Your task to perform on an android device: toggle priority inbox in the gmail app Image 0: 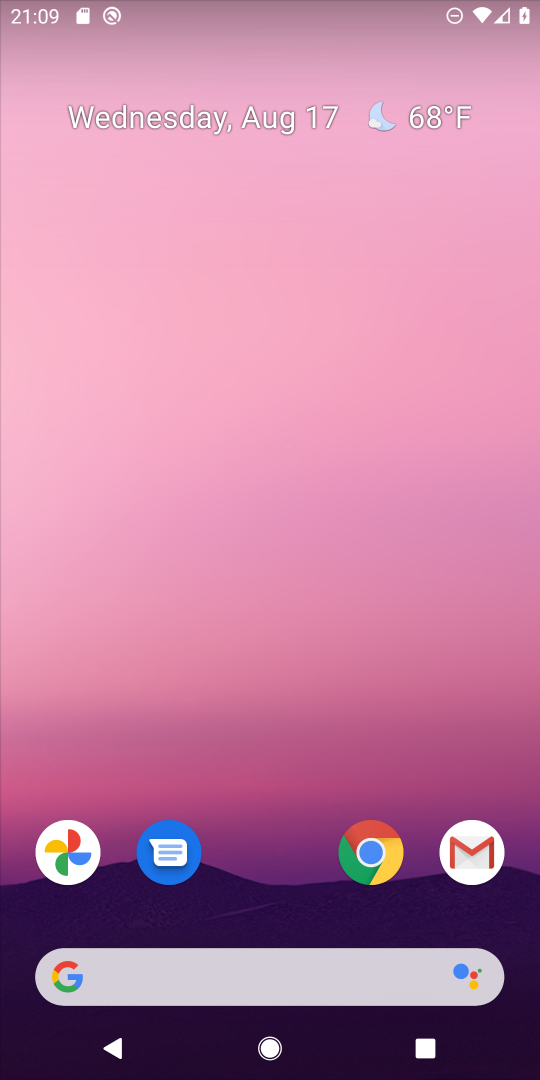
Step 0: click (472, 856)
Your task to perform on an android device: toggle priority inbox in the gmail app Image 1: 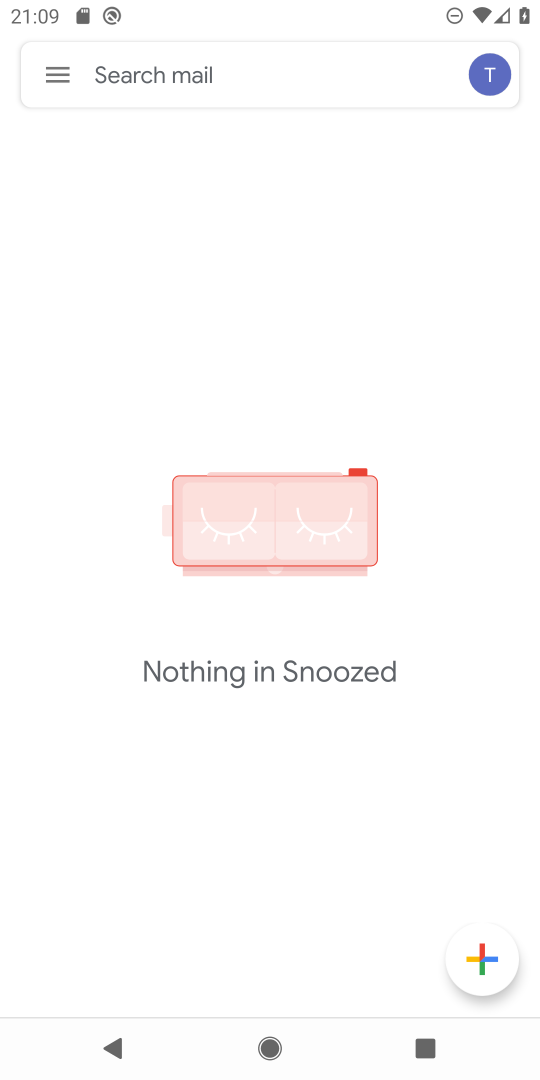
Step 1: click (49, 74)
Your task to perform on an android device: toggle priority inbox in the gmail app Image 2: 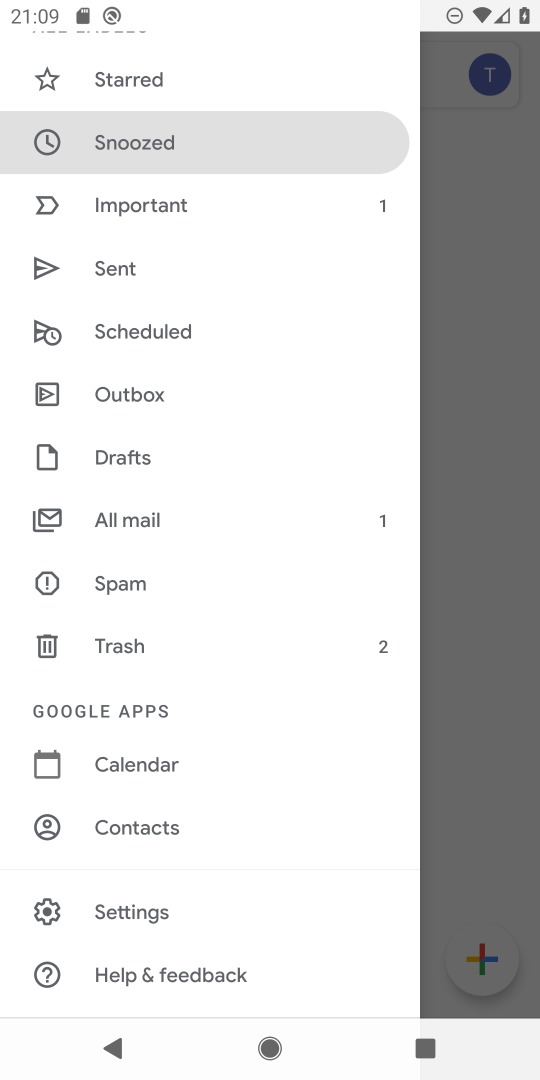
Step 2: click (157, 913)
Your task to perform on an android device: toggle priority inbox in the gmail app Image 3: 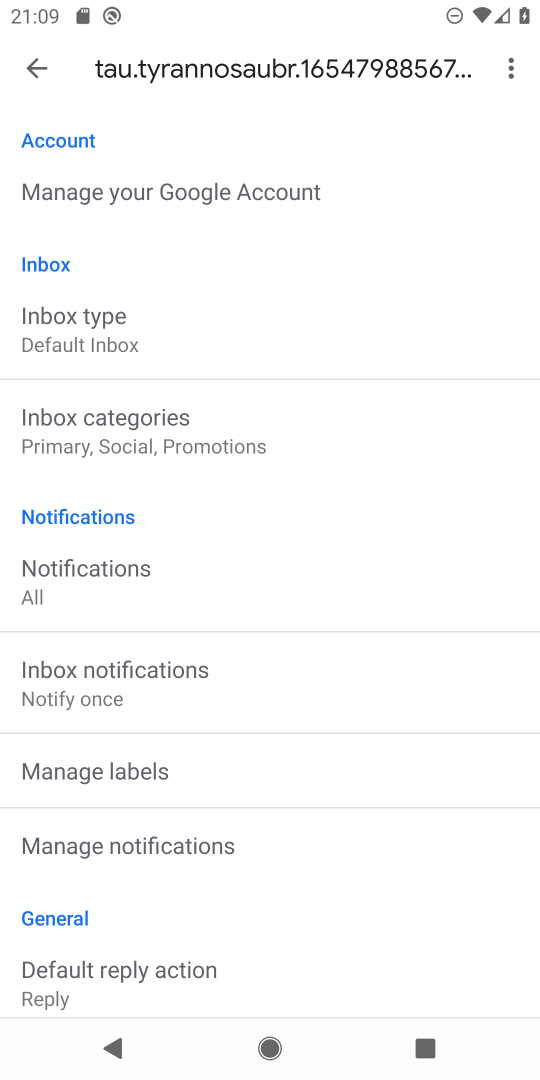
Step 3: click (96, 325)
Your task to perform on an android device: toggle priority inbox in the gmail app Image 4: 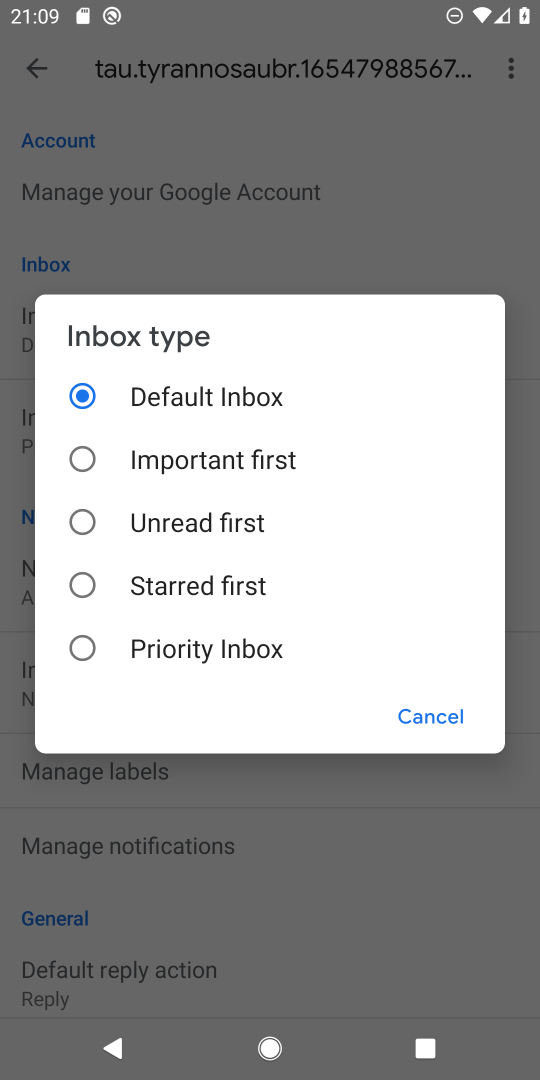
Step 4: click (72, 652)
Your task to perform on an android device: toggle priority inbox in the gmail app Image 5: 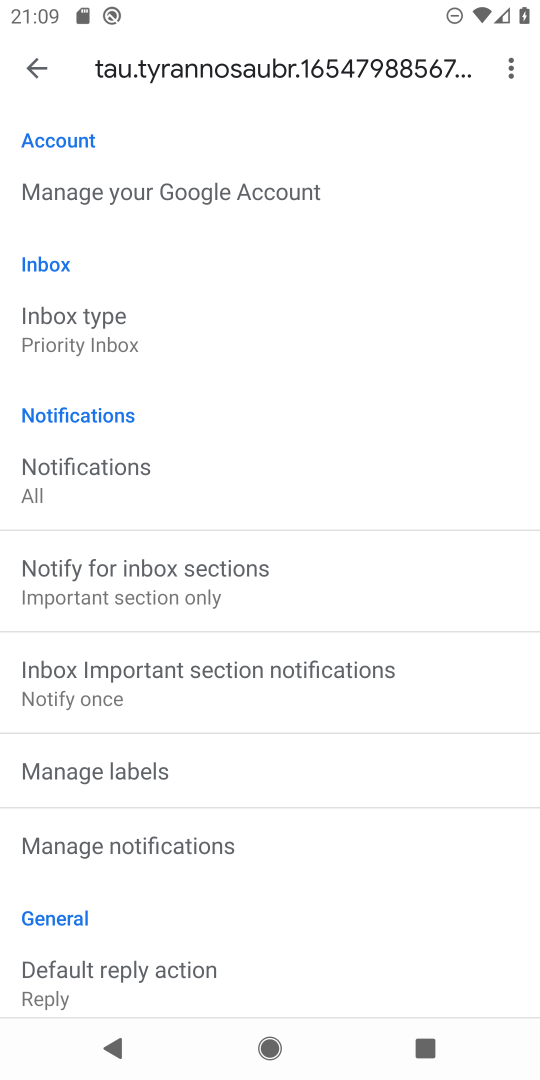
Step 5: task complete